Your task to perform on an android device: toggle location history Image 0: 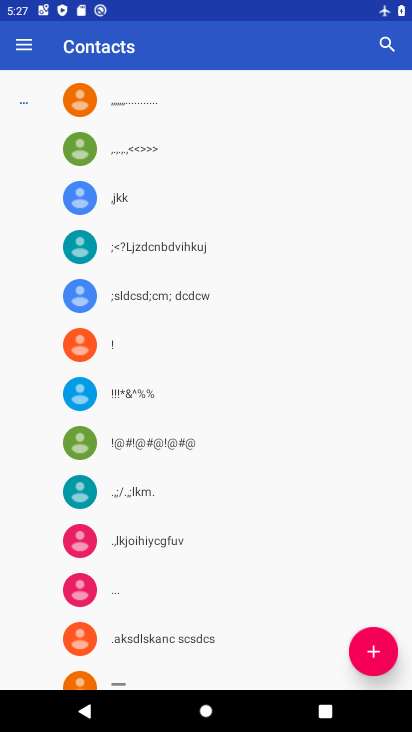
Step 0: press home button
Your task to perform on an android device: toggle location history Image 1: 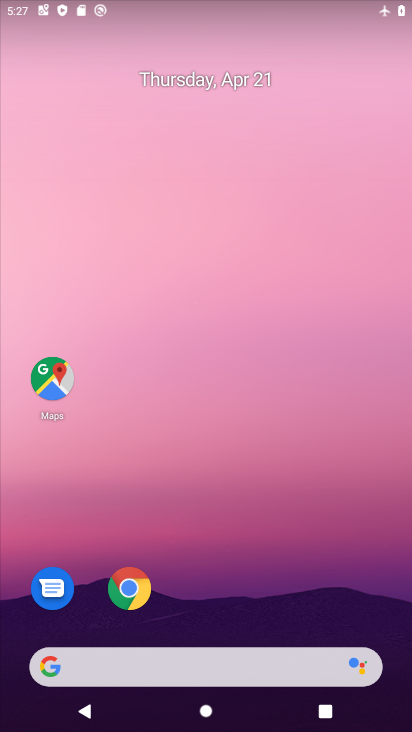
Step 1: drag from (186, 619) to (118, 122)
Your task to perform on an android device: toggle location history Image 2: 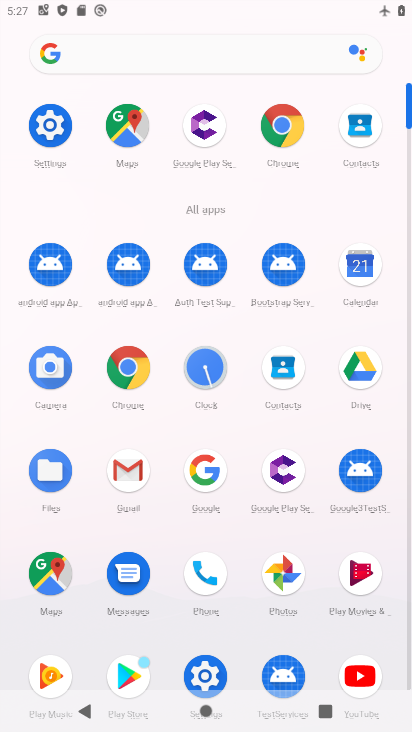
Step 2: drag from (245, 584) to (293, 306)
Your task to perform on an android device: toggle location history Image 3: 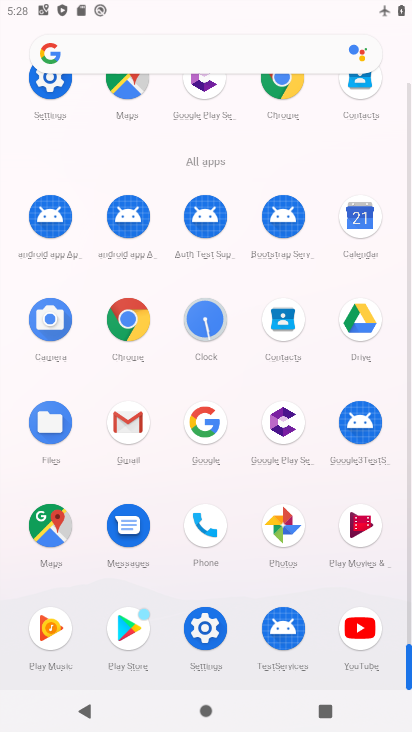
Step 3: click (219, 629)
Your task to perform on an android device: toggle location history Image 4: 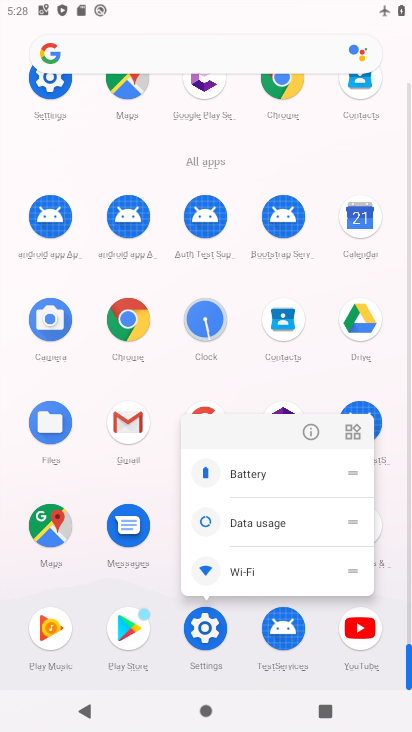
Step 4: click (205, 630)
Your task to perform on an android device: toggle location history Image 5: 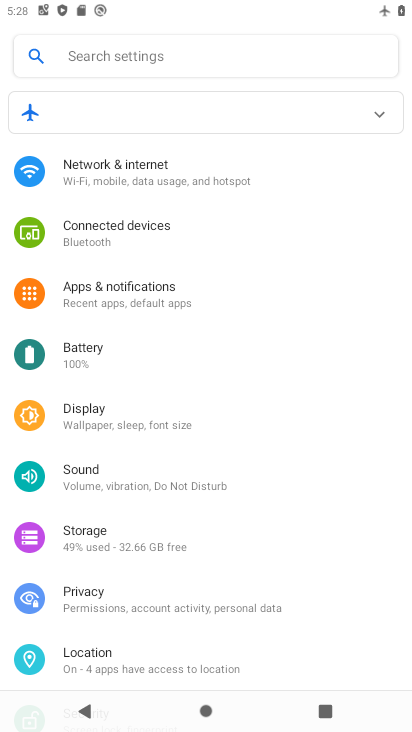
Step 5: click (99, 657)
Your task to perform on an android device: toggle location history Image 6: 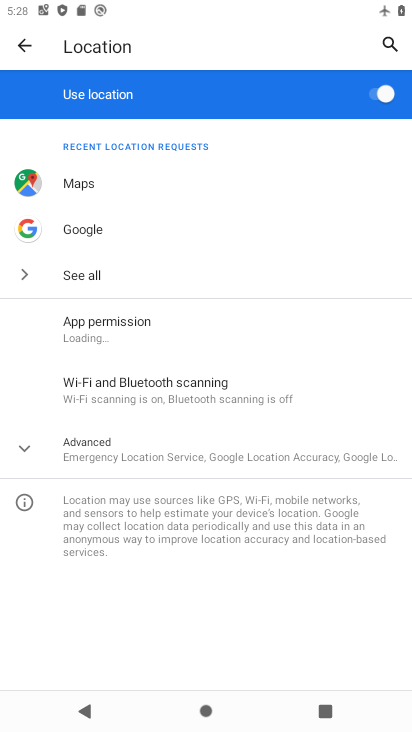
Step 6: click (118, 449)
Your task to perform on an android device: toggle location history Image 7: 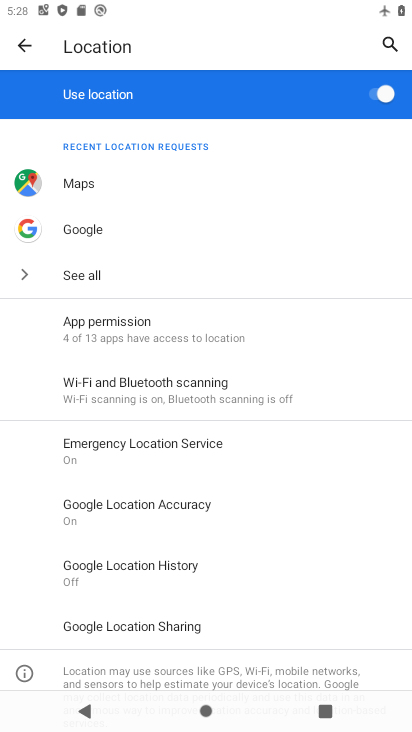
Step 7: click (122, 580)
Your task to perform on an android device: toggle location history Image 8: 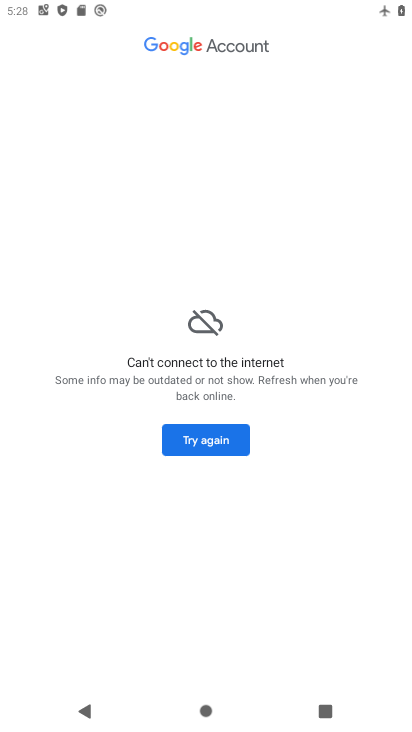
Step 8: task complete